Your task to perform on an android device: Go to Amazon Image 0: 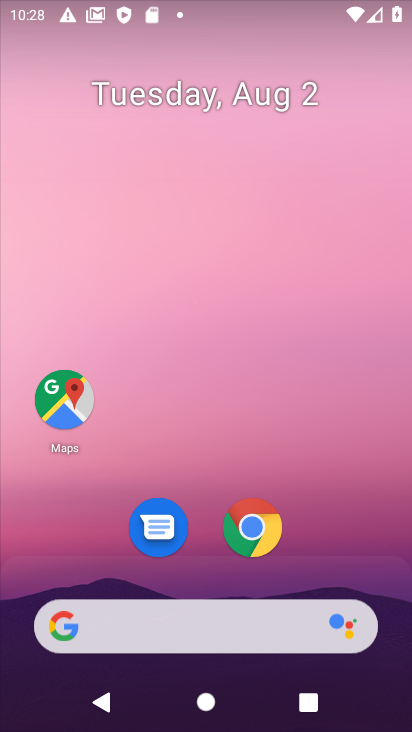
Step 0: drag from (205, 578) to (201, 35)
Your task to perform on an android device: Go to Amazon Image 1: 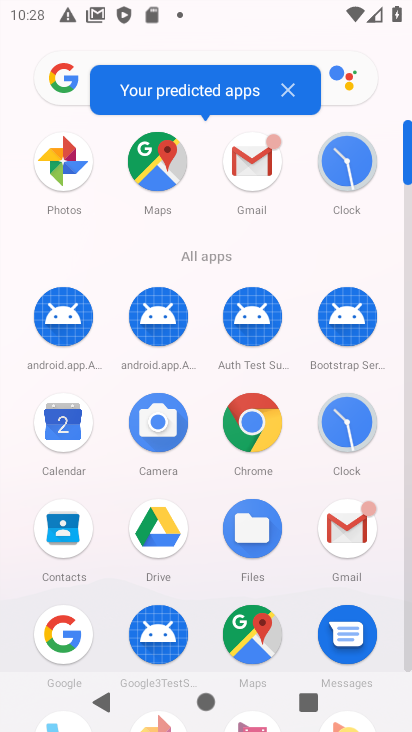
Step 1: click (250, 413)
Your task to perform on an android device: Go to Amazon Image 2: 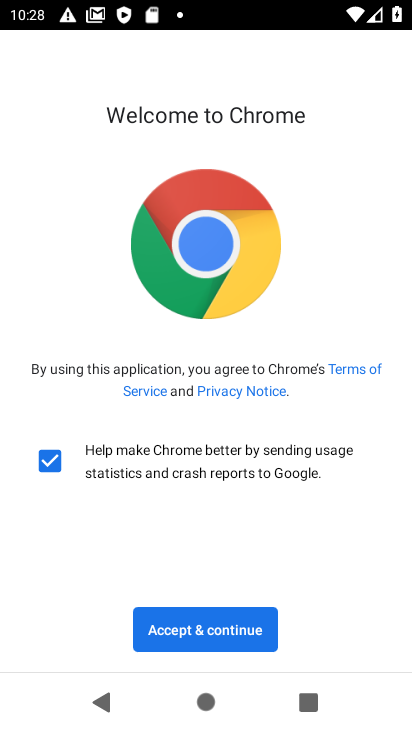
Step 2: click (198, 622)
Your task to perform on an android device: Go to Amazon Image 3: 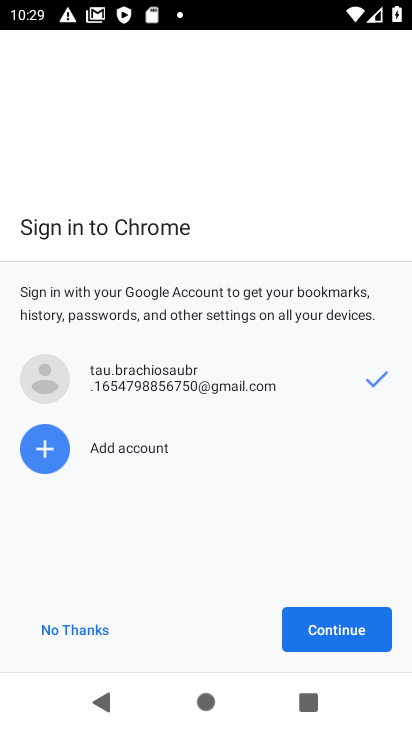
Step 3: click (335, 629)
Your task to perform on an android device: Go to Amazon Image 4: 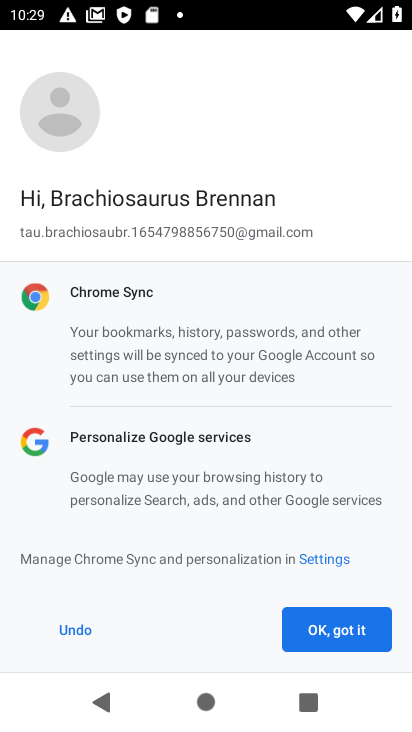
Step 4: click (340, 627)
Your task to perform on an android device: Go to Amazon Image 5: 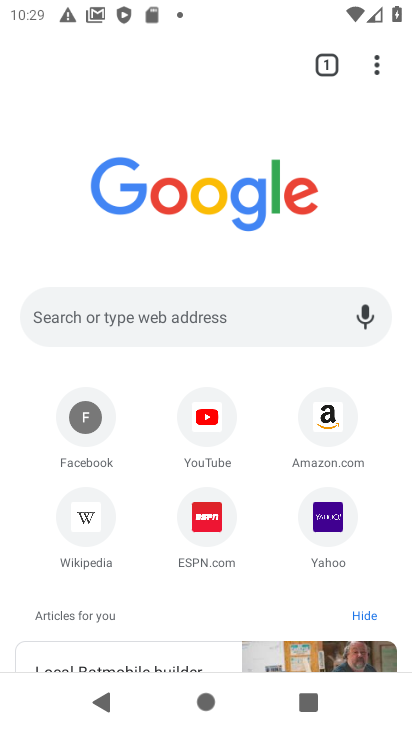
Step 5: click (324, 412)
Your task to perform on an android device: Go to Amazon Image 6: 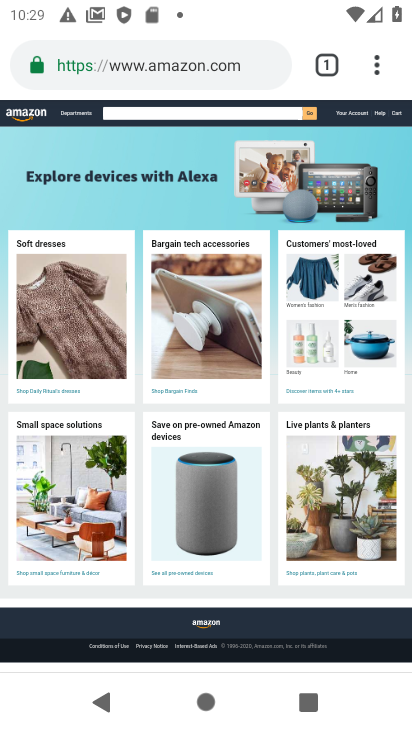
Step 6: task complete